Your task to perform on an android device: open app "Clock" (install if not already installed) Image 0: 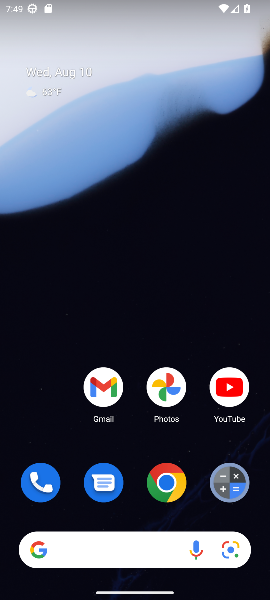
Step 0: drag from (123, 515) to (132, 205)
Your task to perform on an android device: open app "Clock" (install if not already installed) Image 1: 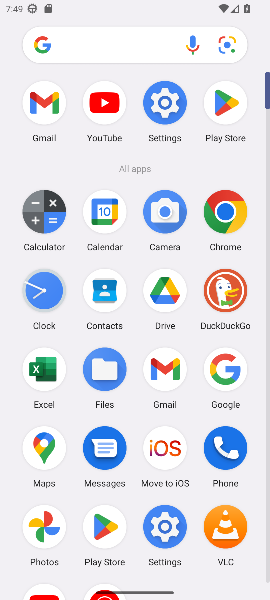
Step 1: click (49, 292)
Your task to perform on an android device: open app "Clock" (install if not already installed) Image 2: 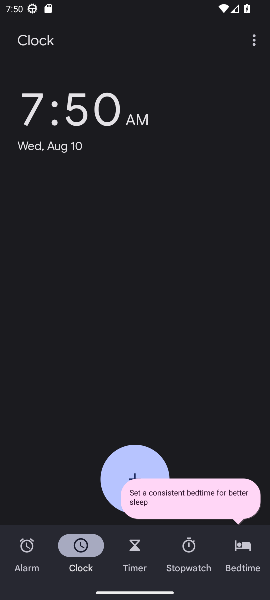
Step 2: task complete